Your task to perform on an android device: Go to calendar. Show me events next week Image 0: 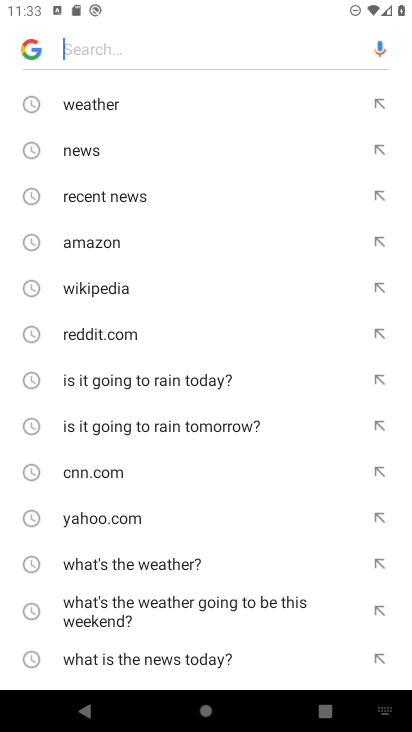
Step 0: press back button
Your task to perform on an android device: Go to calendar. Show me events next week Image 1: 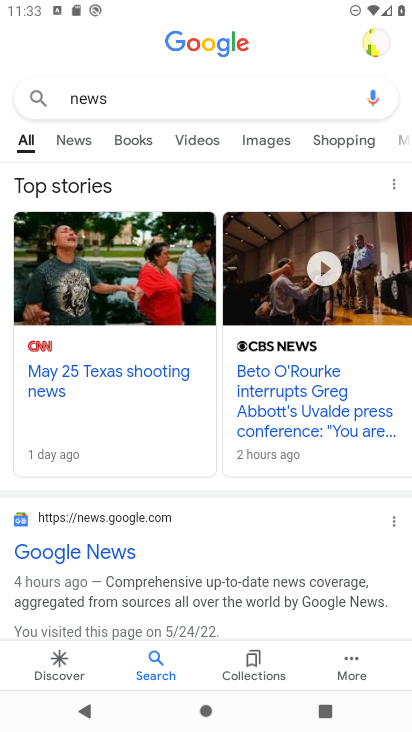
Step 1: press back button
Your task to perform on an android device: Go to calendar. Show me events next week Image 2: 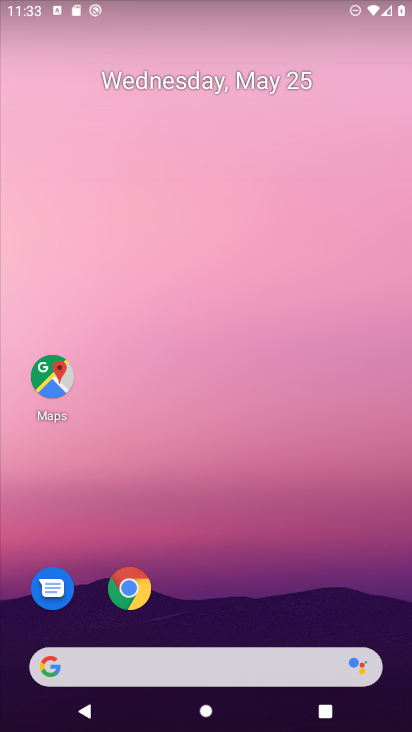
Step 2: drag from (37, 544) to (268, 141)
Your task to perform on an android device: Go to calendar. Show me events next week Image 3: 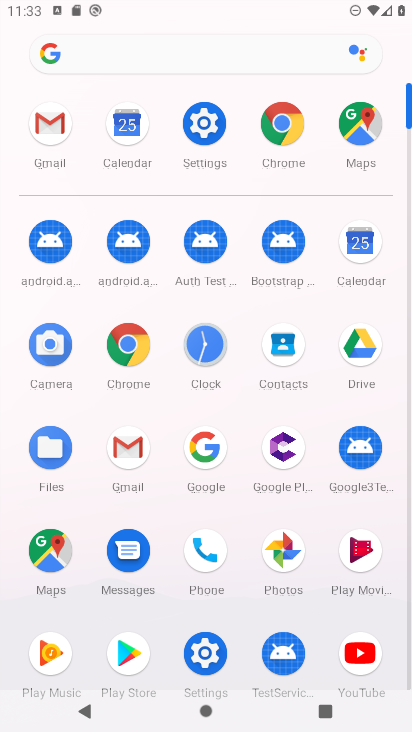
Step 3: click (356, 254)
Your task to perform on an android device: Go to calendar. Show me events next week Image 4: 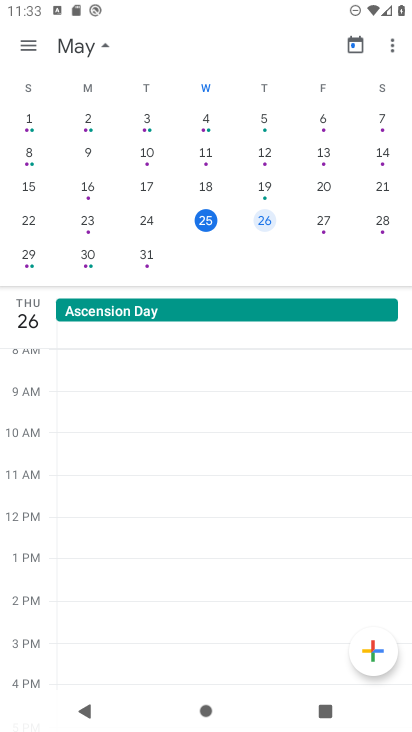
Step 4: click (96, 261)
Your task to perform on an android device: Go to calendar. Show me events next week Image 5: 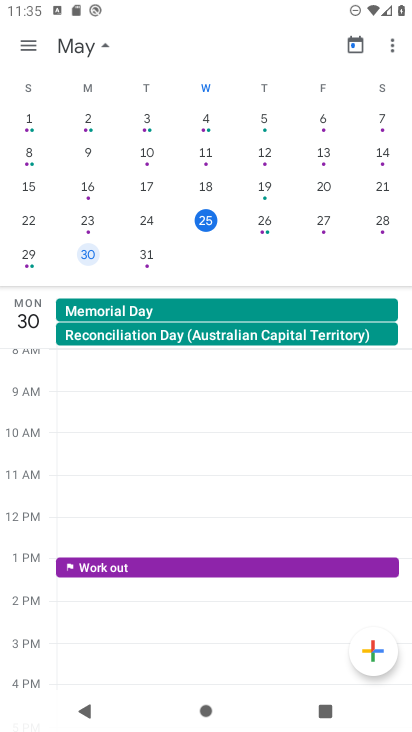
Step 5: task complete